Your task to perform on an android device: move a message to another label in the gmail app Image 0: 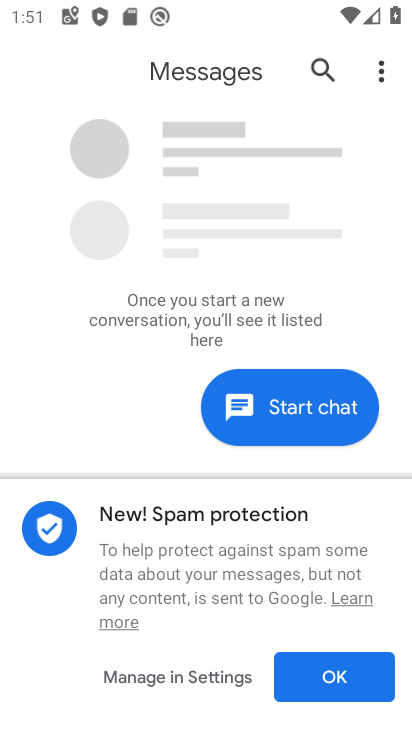
Step 0: press home button
Your task to perform on an android device: move a message to another label in the gmail app Image 1: 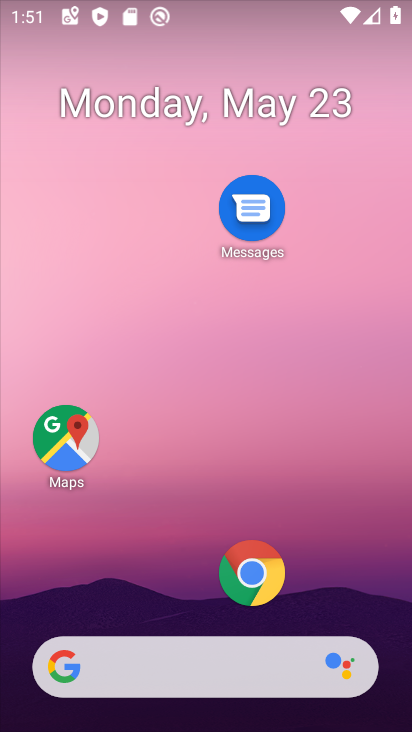
Step 1: drag from (189, 378) to (226, 42)
Your task to perform on an android device: move a message to another label in the gmail app Image 2: 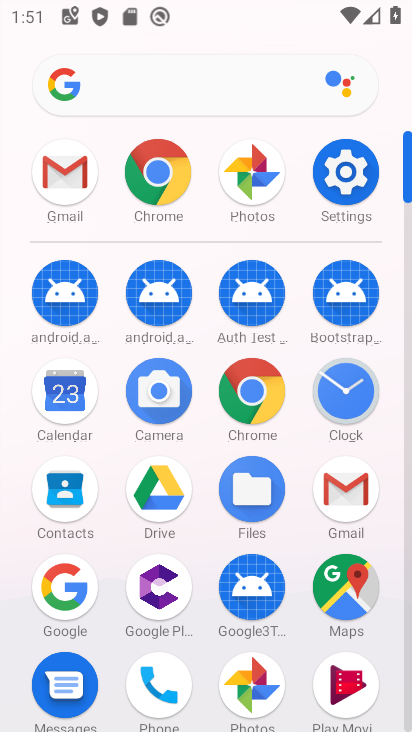
Step 2: click (51, 181)
Your task to perform on an android device: move a message to another label in the gmail app Image 3: 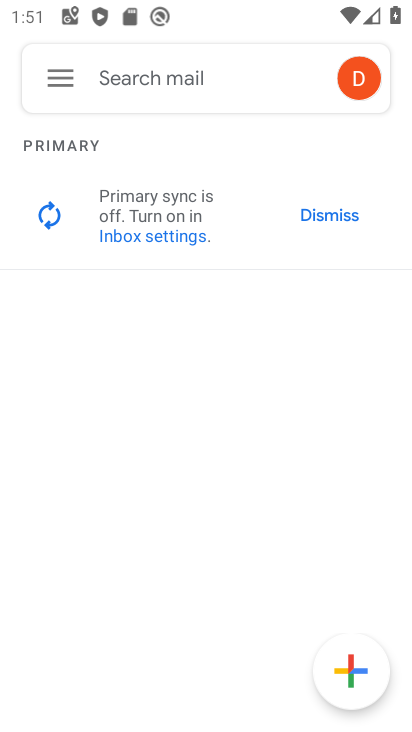
Step 3: click (55, 70)
Your task to perform on an android device: move a message to another label in the gmail app Image 4: 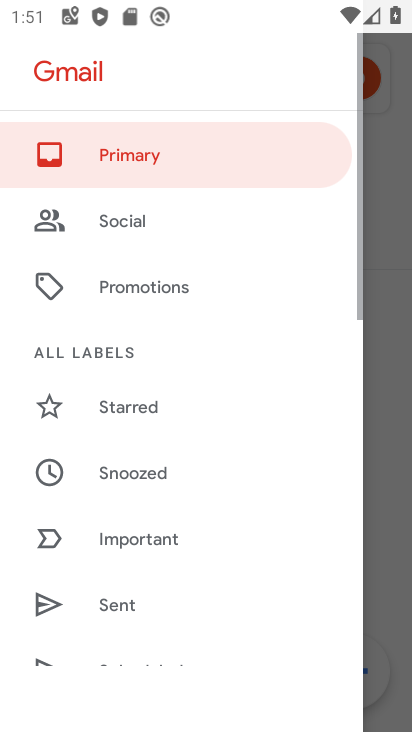
Step 4: click (125, 217)
Your task to perform on an android device: move a message to another label in the gmail app Image 5: 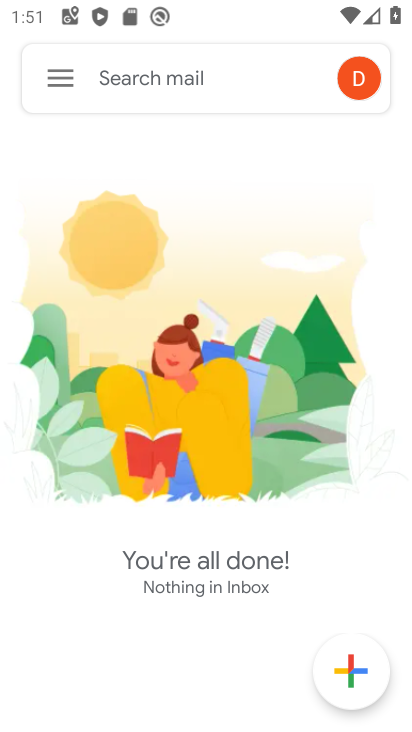
Step 5: task complete